Your task to perform on an android device: see creations saved in the google photos Image 0: 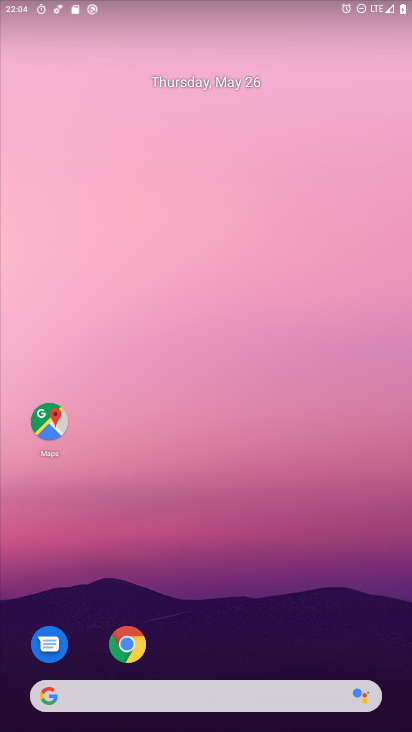
Step 0: click (320, 81)
Your task to perform on an android device: see creations saved in the google photos Image 1: 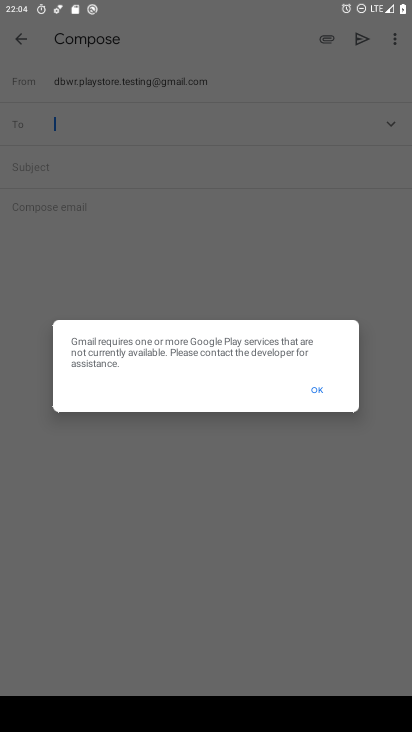
Step 1: press home button
Your task to perform on an android device: see creations saved in the google photos Image 2: 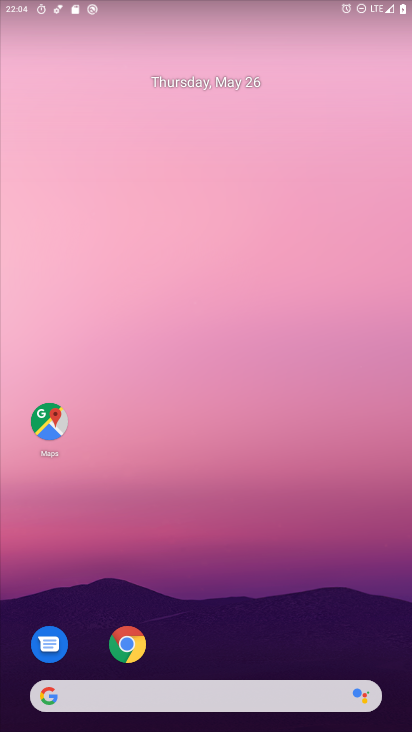
Step 2: drag from (191, 623) to (194, 34)
Your task to perform on an android device: see creations saved in the google photos Image 3: 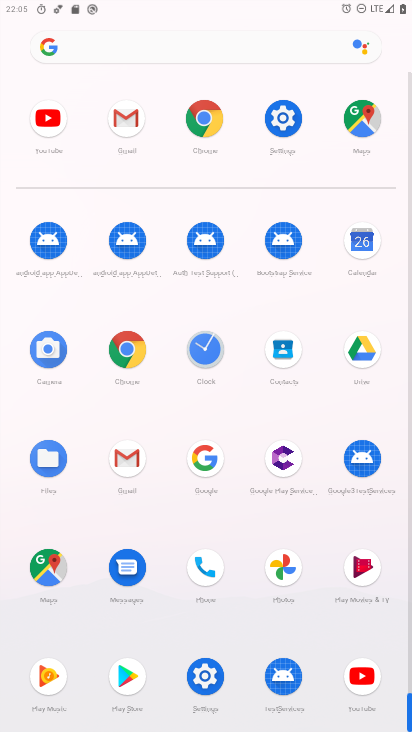
Step 3: click (273, 568)
Your task to perform on an android device: see creations saved in the google photos Image 4: 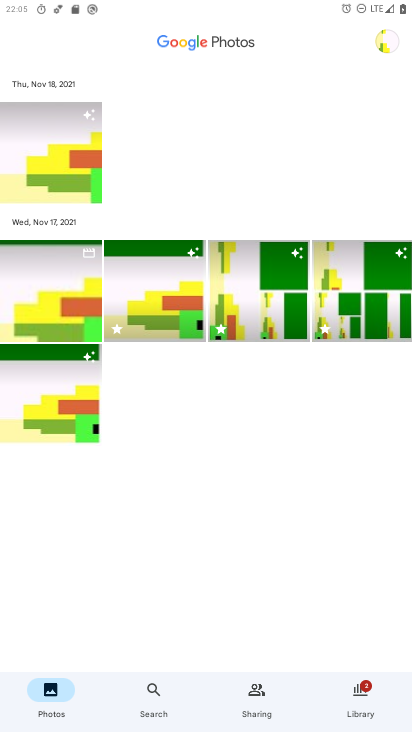
Step 4: click (150, 694)
Your task to perform on an android device: see creations saved in the google photos Image 5: 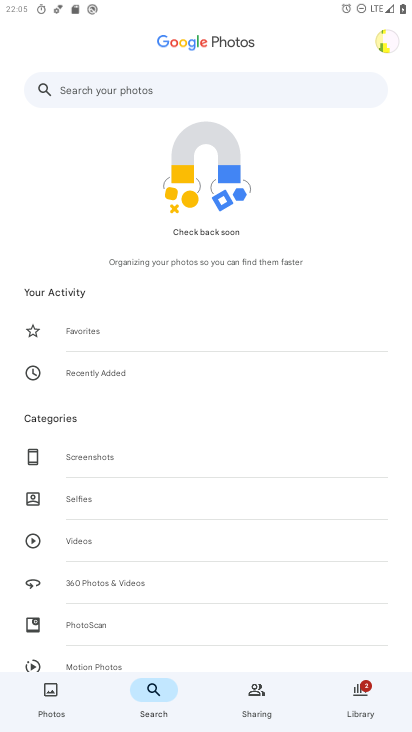
Step 5: drag from (129, 627) to (219, 133)
Your task to perform on an android device: see creations saved in the google photos Image 6: 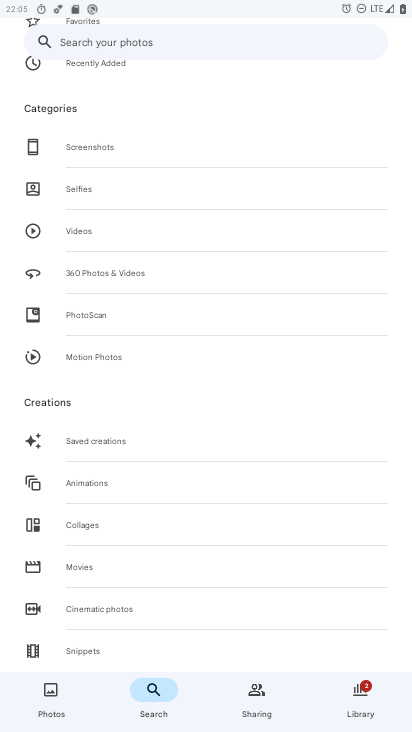
Step 6: drag from (149, 452) to (225, 56)
Your task to perform on an android device: see creations saved in the google photos Image 7: 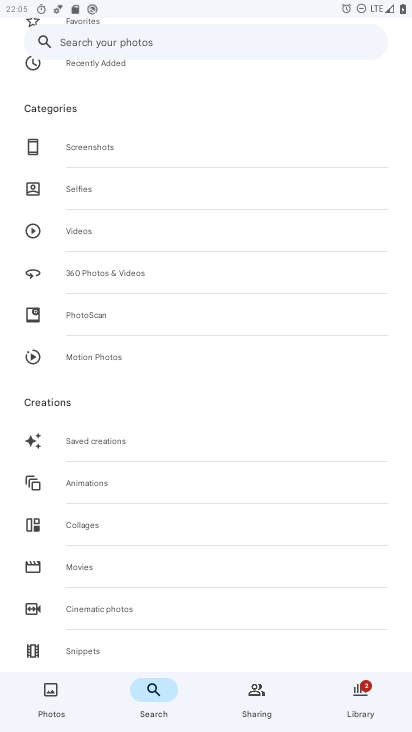
Step 7: click (106, 443)
Your task to perform on an android device: see creations saved in the google photos Image 8: 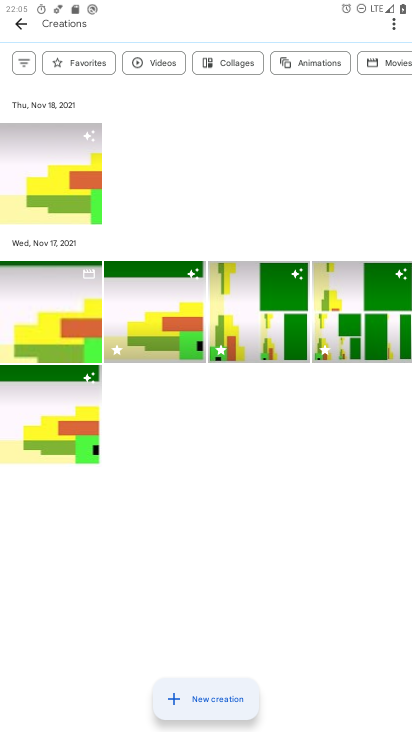
Step 8: click (142, 319)
Your task to perform on an android device: see creations saved in the google photos Image 9: 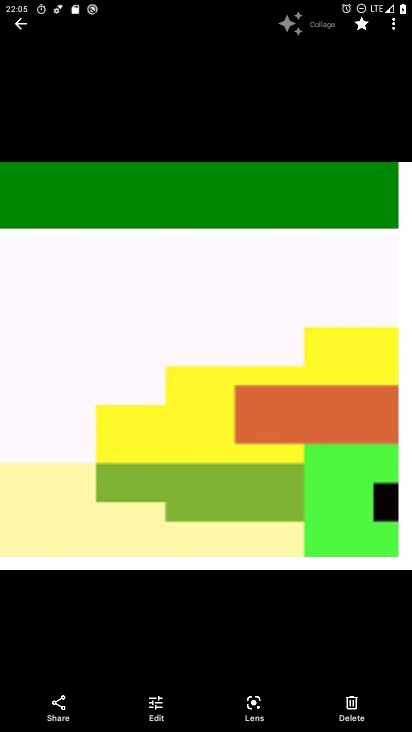
Step 9: task complete